Your task to perform on an android device: Open sound settings Image 0: 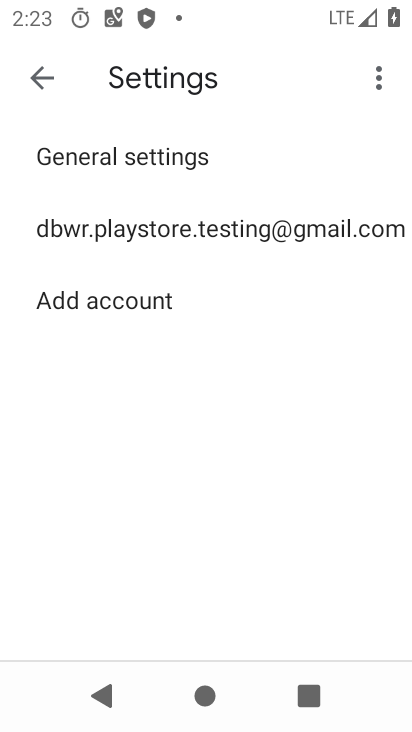
Step 0: press home button
Your task to perform on an android device: Open sound settings Image 1: 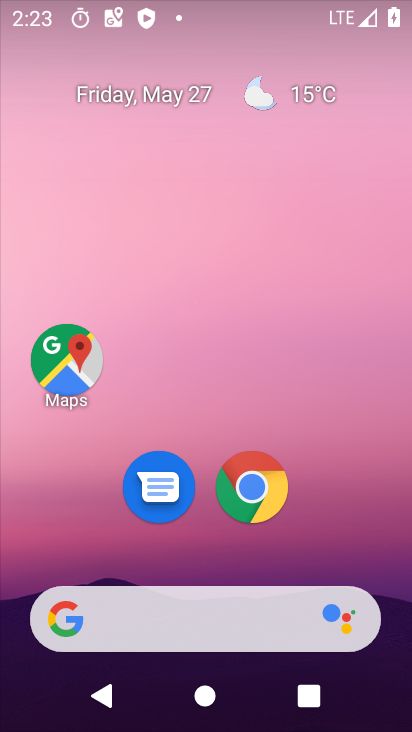
Step 1: drag from (305, 338) to (305, 133)
Your task to perform on an android device: Open sound settings Image 2: 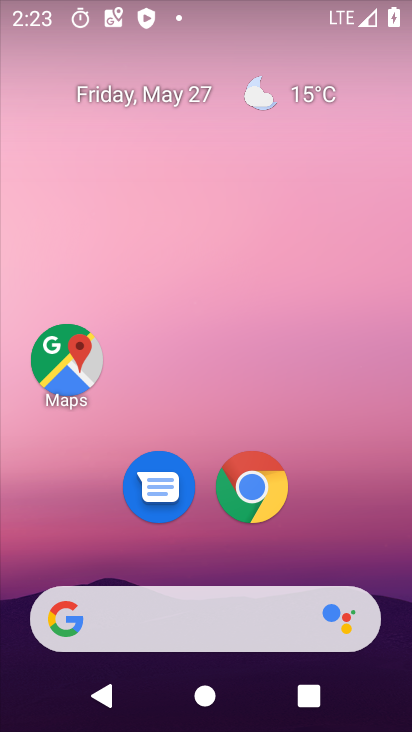
Step 2: drag from (346, 383) to (314, 77)
Your task to perform on an android device: Open sound settings Image 3: 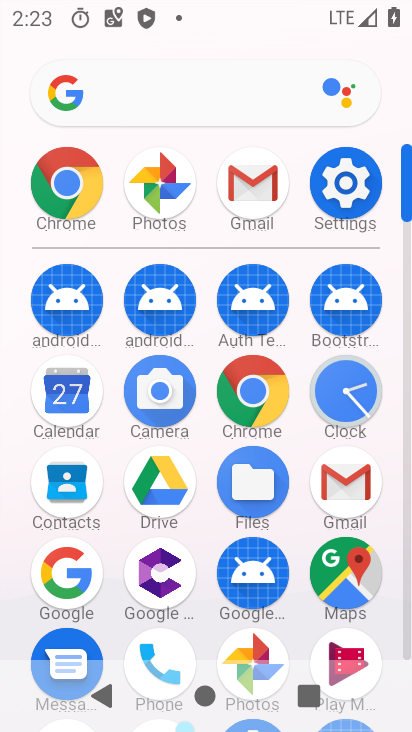
Step 3: click (339, 185)
Your task to perform on an android device: Open sound settings Image 4: 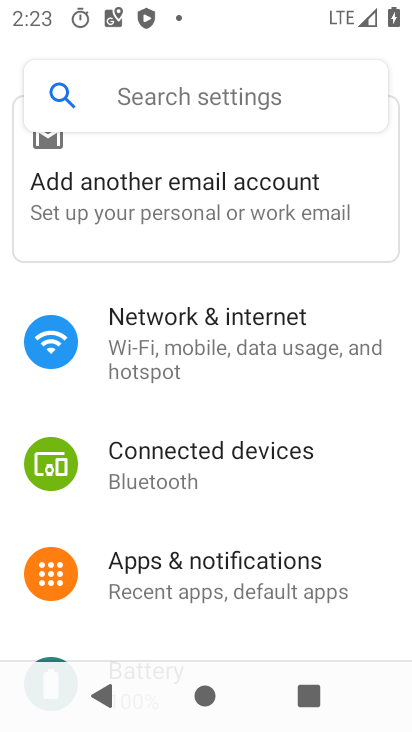
Step 4: drag from (256, 430) to (286, 44)
Your task to perform on an android device: Open sound settings Image 5: 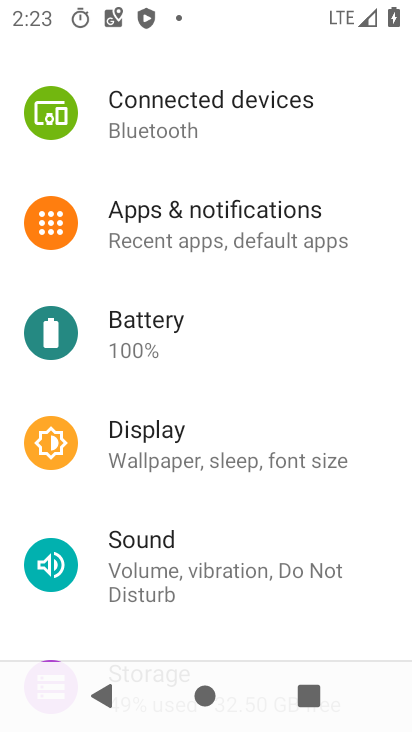
Step 5: click (195, 580)
Your task to perform on an android device: Open sound settings Image 6: 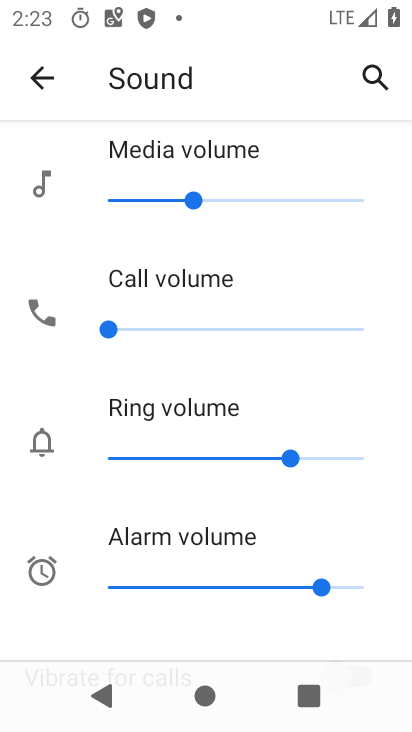
Step 6: task complete